Your task to perform on an android device: Open the stopwatch Image 0: 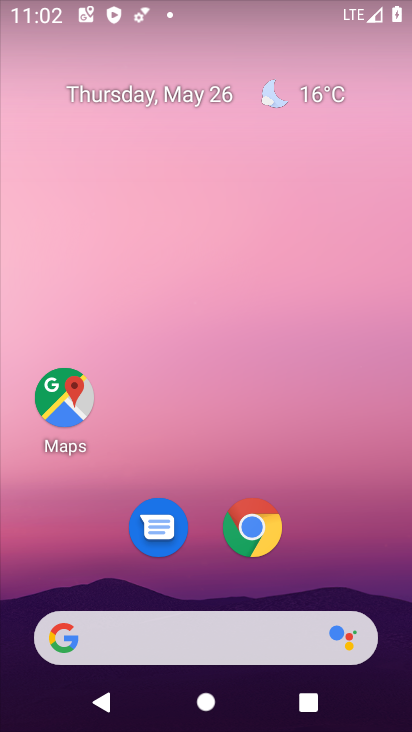
Step 0: drag from (203, 584) to (154, 5)
Your task to perform on an android device: Open the stopwatch Image 1: 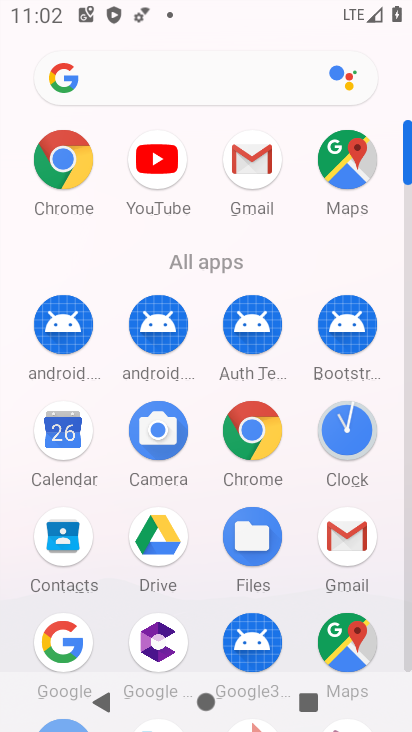
Step 1: click (336, 441)
Your task to perform on an android device: Open the stopwatch Image 2: 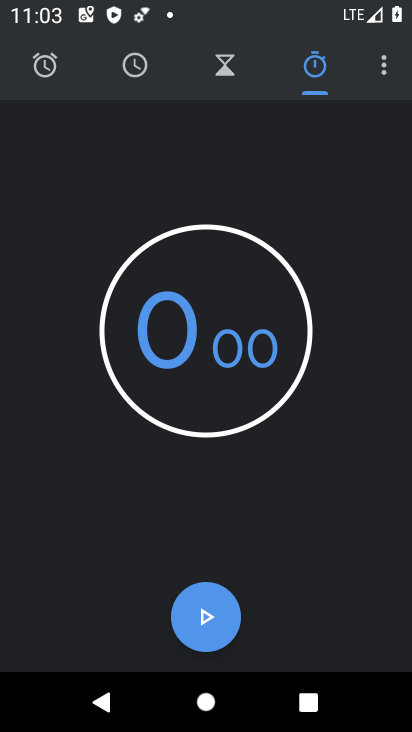
Step 2: task complete